Your task to perform on an android device: open app "TextNow: Call + Text Unlimited" (install if not already installed), go to login, and select forgot password Image 0: 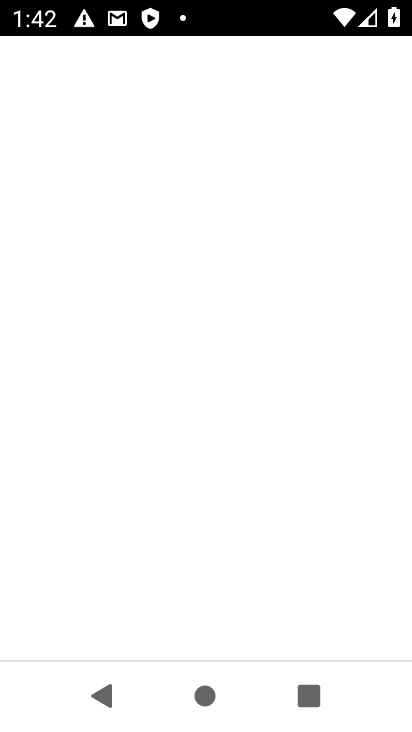
Step 0: press home button
Your task to perform on an android device: open app "TextNow: Call + Text Unlimited" (install if not already installed), go to login, and select forgot password Image 1: 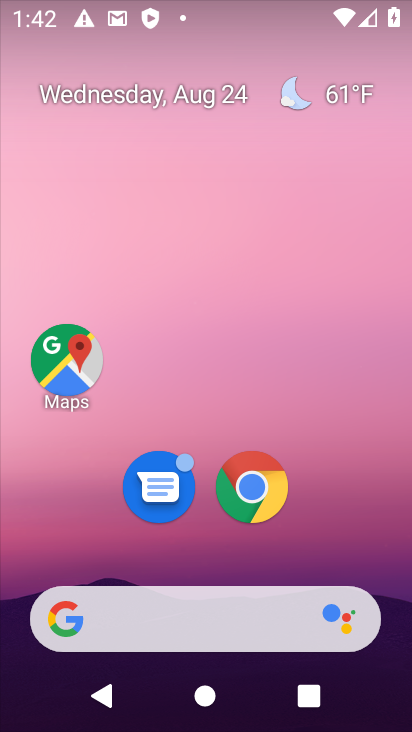
Step 1: drag from (210, 615) to (227, 50)
Your task to perform on an android device: open app "TextNow: Call + Text Unlimited" (install if not already installed), go to login, and select forgot password Image 2: 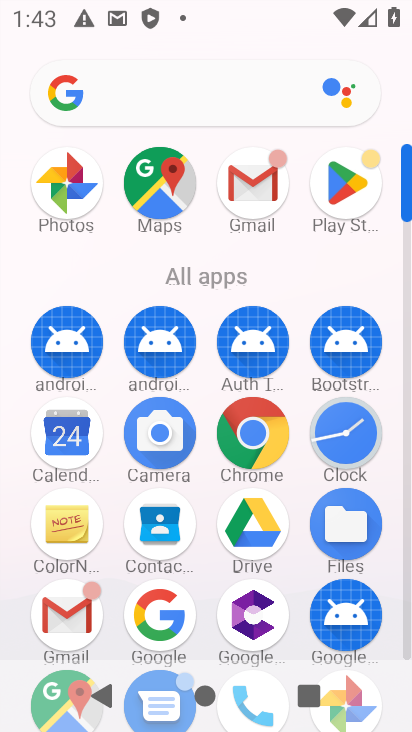
Step 2: click (348, 195)
Your task to perform on an android device: open app "TextNow: Call + Text Unlimited" (install if not already installed), go to login, and select forgot password Image 3: 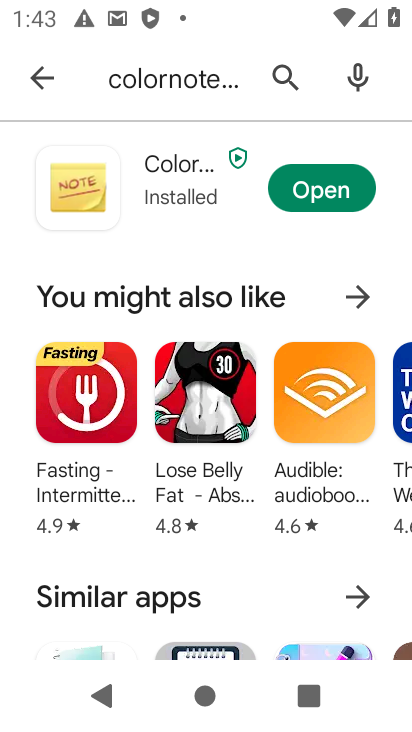
Step 3: press back button
Your task to perform on an android device: open app "TextNow: Call + Text Unlimited" (install if not already installed), go to login, and select forgot password Image 4: 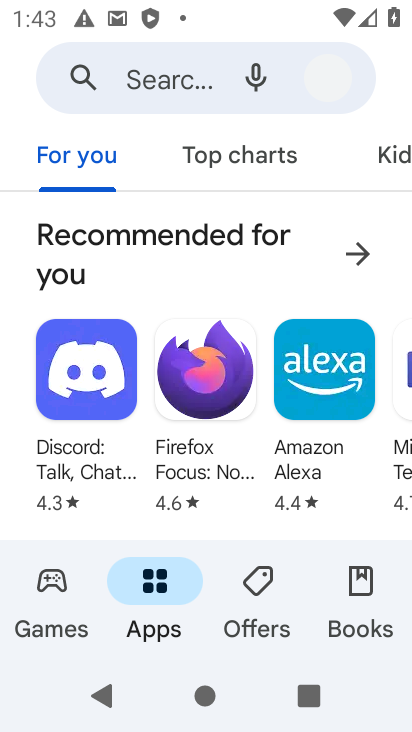
Step 4: click (193, 90)
Your task to perform on an android device: open app "TextNow: Call + Text Unlimited" (install if not already installed), go to login, and select forgot password Image 5: 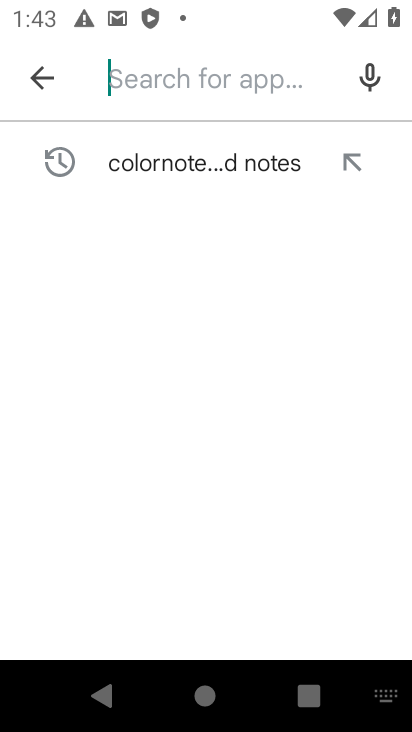
Step 5: type "TextNow: Call + Text Unlimited"
Your task to perform on an android device: open app "TextNow: Call + Text Unlimited" (install if not already installed), go to login, and select forgot password Image 6: 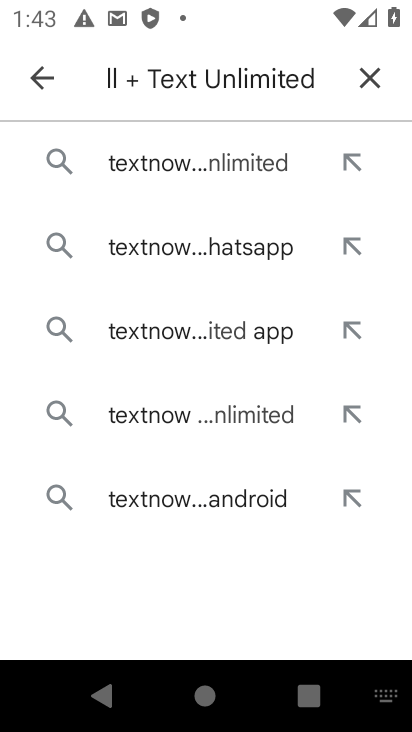
Step 6: click (171, 161)
Your task to perform on an android device: open app "TextNow: Call + Text Unlimited" (install if not already installed), go to login, and select forgot password Image 7: 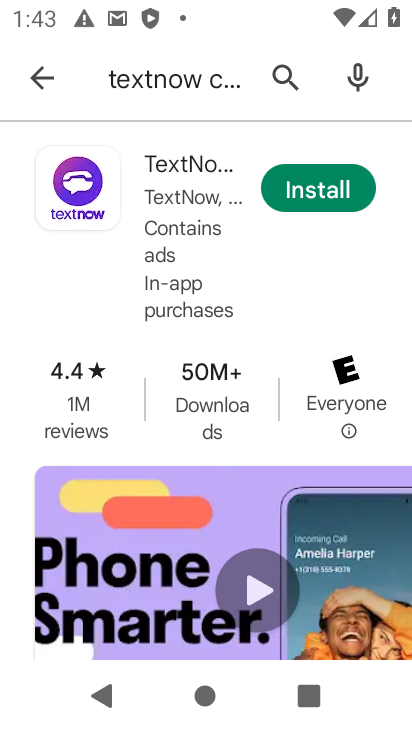
Step 7: click (321, 193)
Your task to perform on an android device: open app "TextNow: Call + Text Unlimited" (install if not already installed), go to login, and select forgot password Image 8: 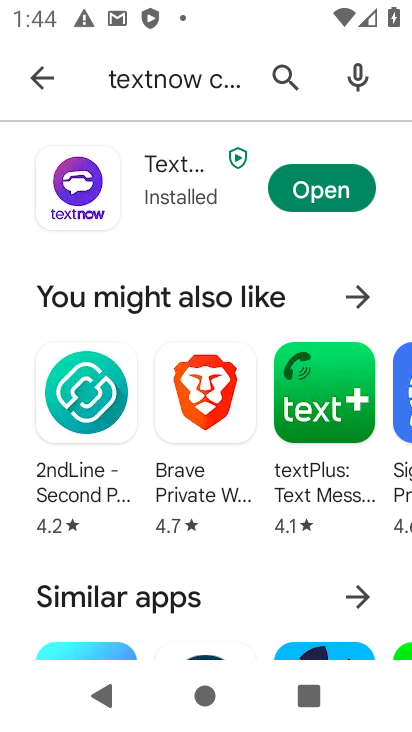
Step 8: click (325, 190)
Your task to perform on an android device: open app "TextNow: Call + Text Unlimited" (install if not already installed), go to login, and select forgot password Image 9: 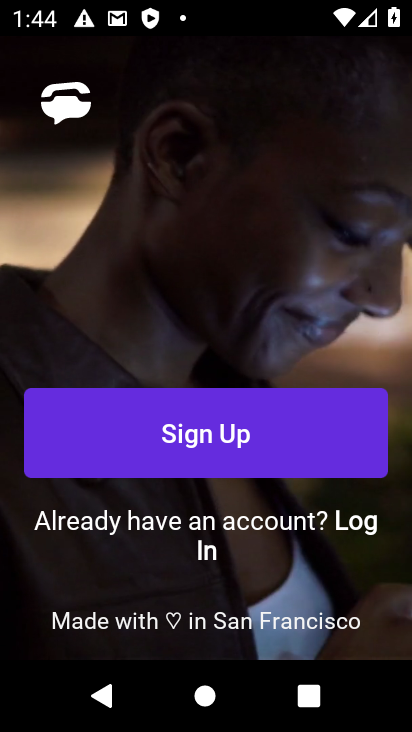
Step 9: click (363, 527)
Your task to perform on an android device: open app "TextNow: Call + Text Unlimited" (install if not already installed), go to login, and select forgot password Image 10: 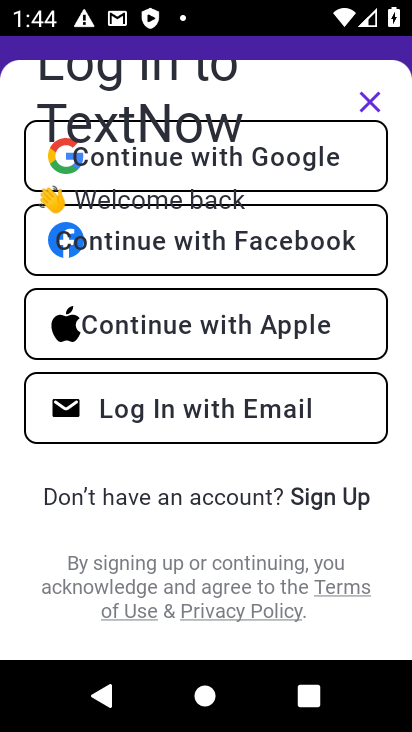
Step 10: click (262, 416)
Your task to perform on an android device: open app "TextNow: Call + Text Unlimited" (install if not already installed), go to login, and select forgot password Image 11: 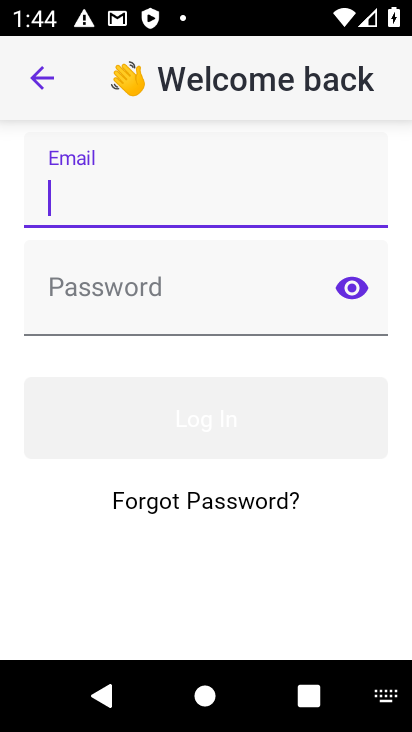
Step 11: click (237, 497)
Your task to perform on an android device: open app "TextNow: Call + Text Unlimited" (install if not already installed), go to login, and select forgot password Image 12: 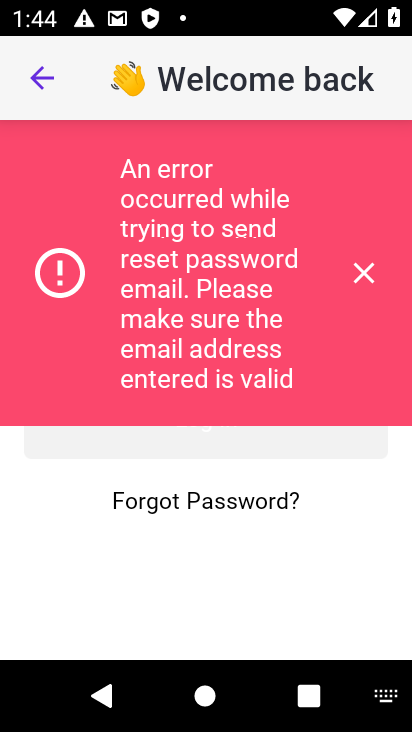
Step 12: task complete